Your task to perform on an android device: change notification settings in the gmail app Image 0: 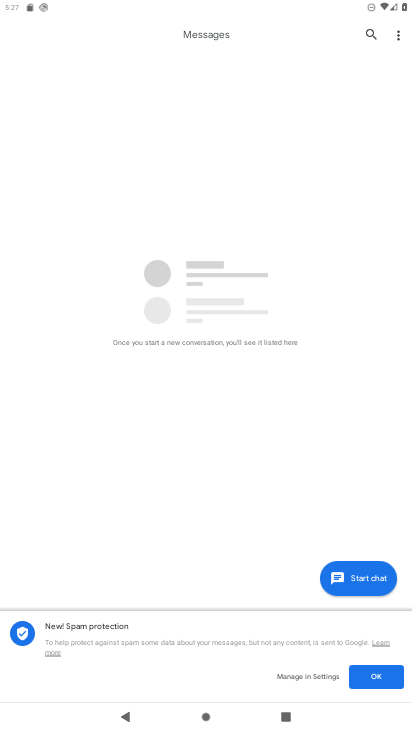
Step 0: press home button
Your task to perform on an android device: change notification settings in the gmail app Image 1: 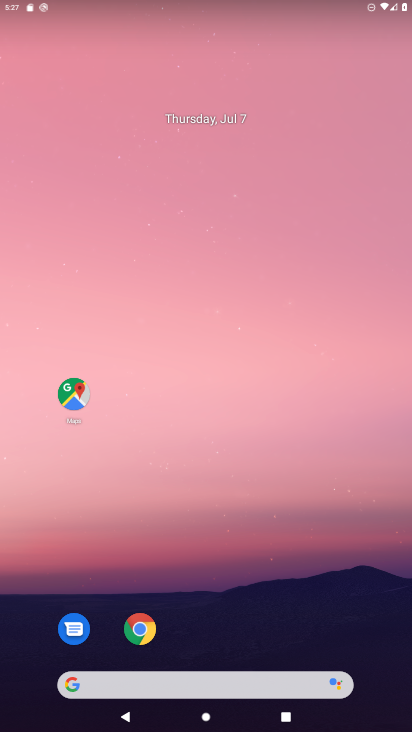
Step 1: drag from (289, 623) to (303, 4)
Your task to perform on an android device: change notification settings in the gmail app Image 2: 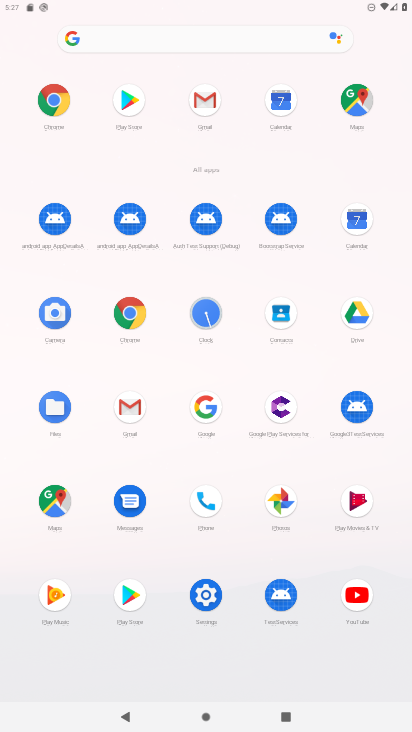
Step 2: click (140, 410)
Your task to perform on an android device: change notification settings in the gmail app Image 3: 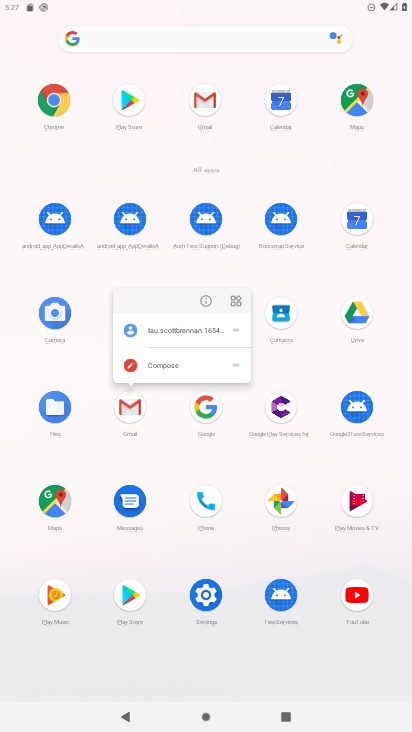
Step 3: click (204, 299)
Your task to perform on an android device: change notification settings in the gmail app Image 4: 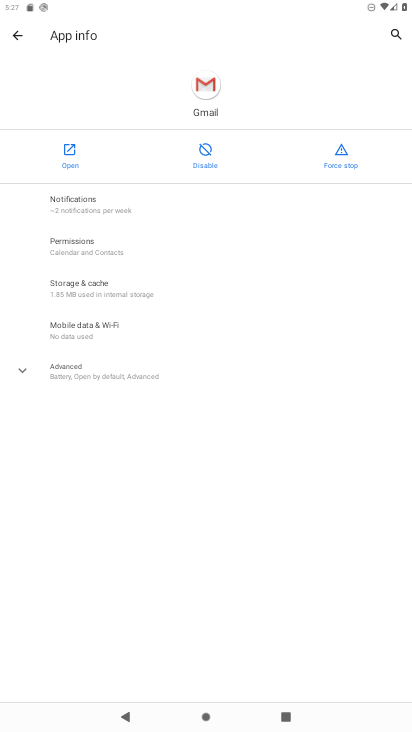
Step 4: click (185, 198)
Your task to perform on an android device: change notification settings in the gmail app Image 5: 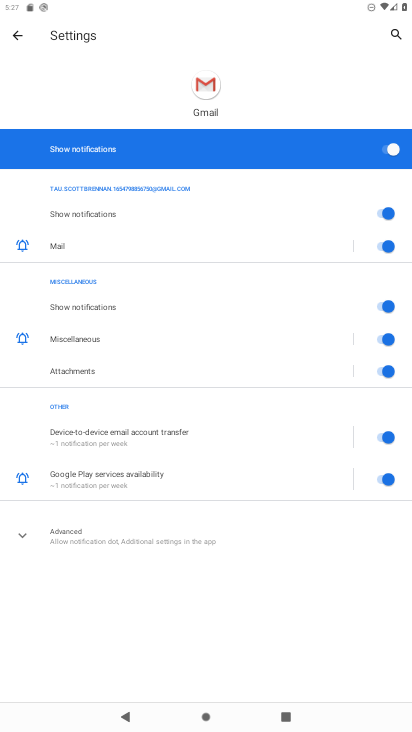
Step 5: click (395, 149)
Your task to perform on an android device: change notification settings in the gmail app Image 6: 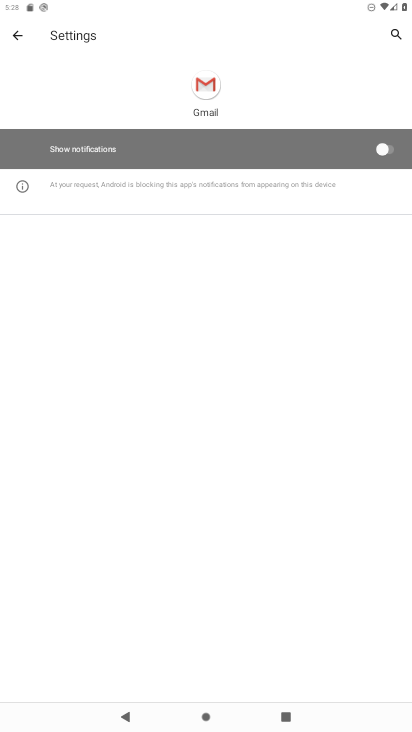
Step 6: task complete